Your task to perform on an android device: Open calendar and show me the first week of next month Image 0: 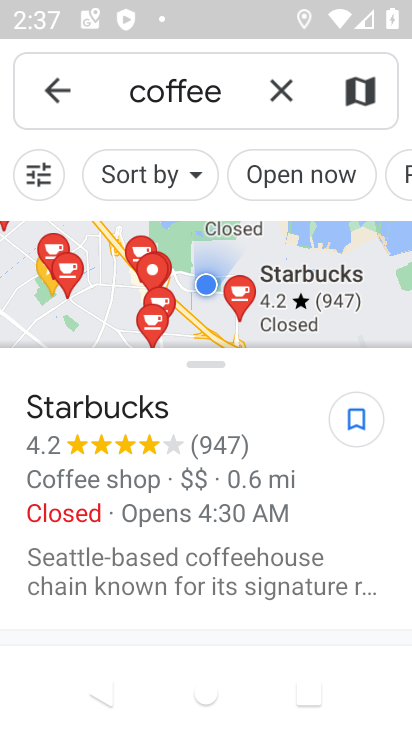
Step 0: press back button
Your task to perform on an android device: Open calendar and show me the first week of next month Image 1: 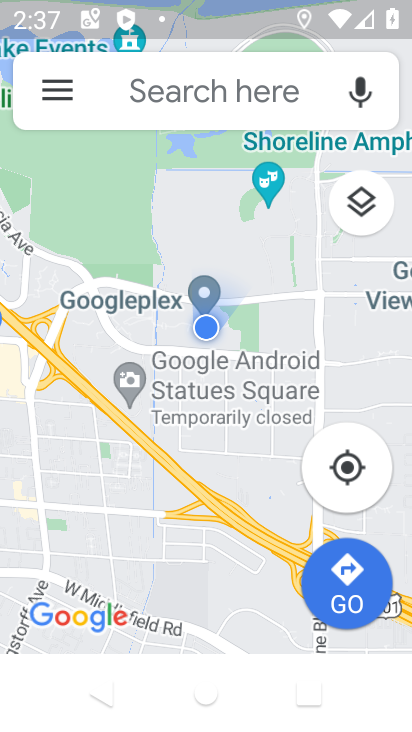
Step 1: press back button
Your task to perform on an android device: Open calendar and show me the first week of next month Image 2: 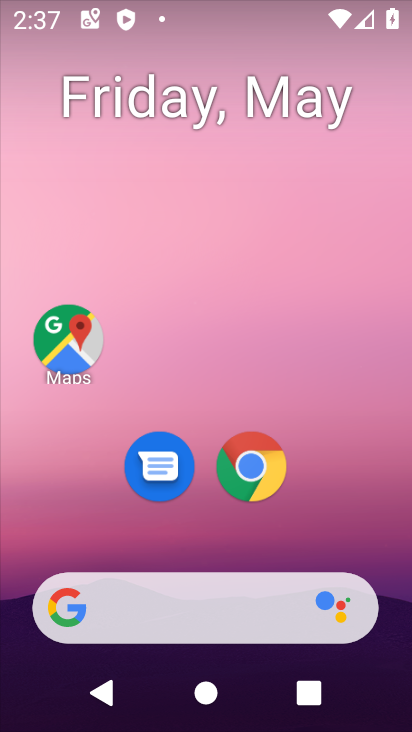
Step 2: drag from (204, 435) to (322, 90)
Your task to perform on an android device: Open calendar and show me the first week of next month Image 3: 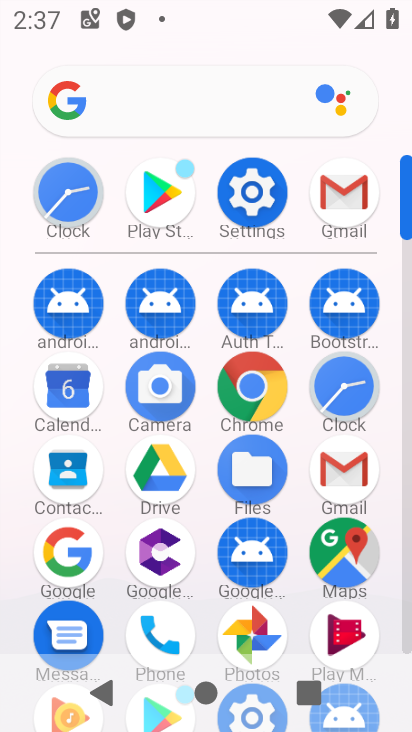
Step 3: click (56, 388)
Your task to perform on an android device: Open calendar and show me the first week of next month Image 4: 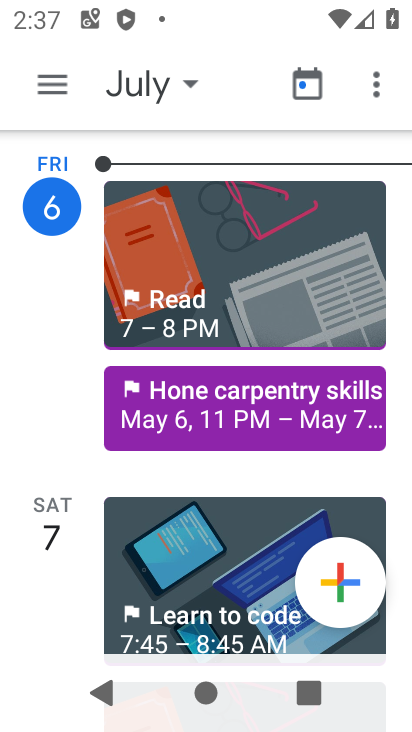
Step 4: click (192, 79)
Your task to perform on an android device: Open calendar and show me the first week of next month Image 5: 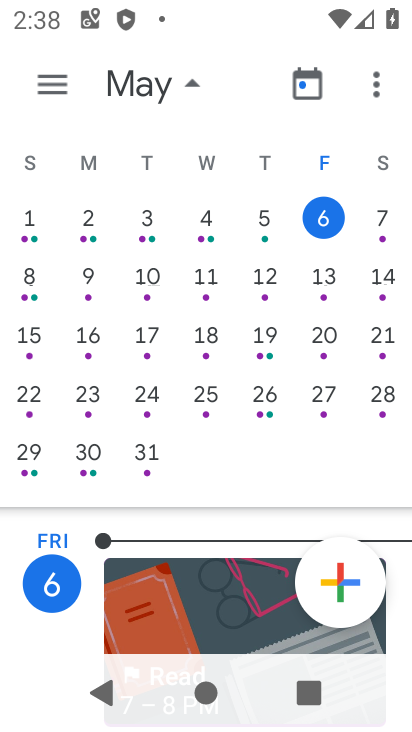
Step 5: drag from (385, 314) to (96, 298)
Your task to perform on an android device: Open calendar and show me the first week of next month Image 6: 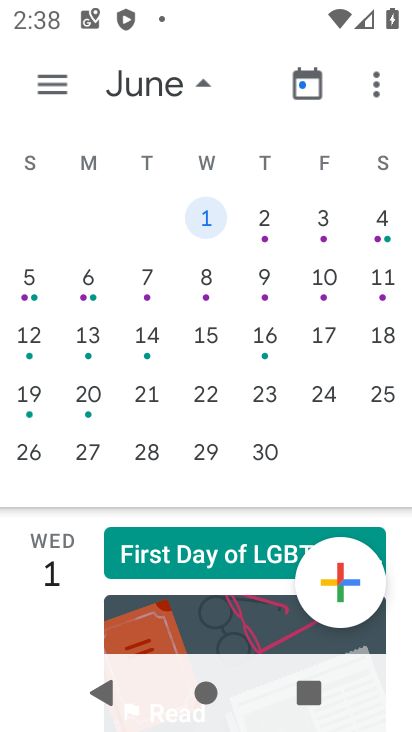
Step 6: click (209, 214)
Your task to perform on an android device: Open calendar and show me the first week of next month Image 7: 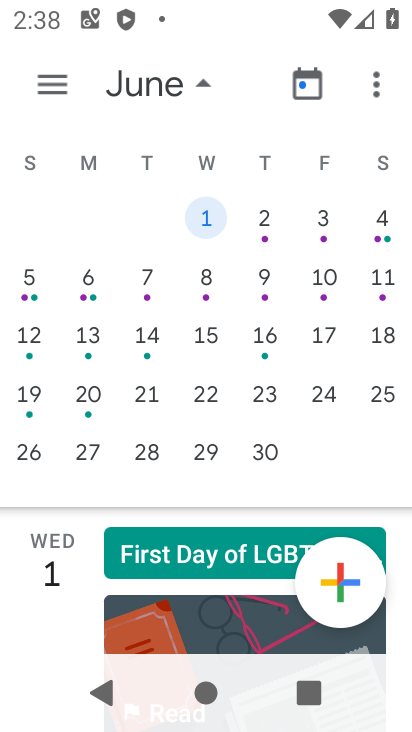
Step 7: task complete